Your task to perform on an android device: open app "Duolingo: language lessons" (install if not already installed) and go to login screen Image 0: 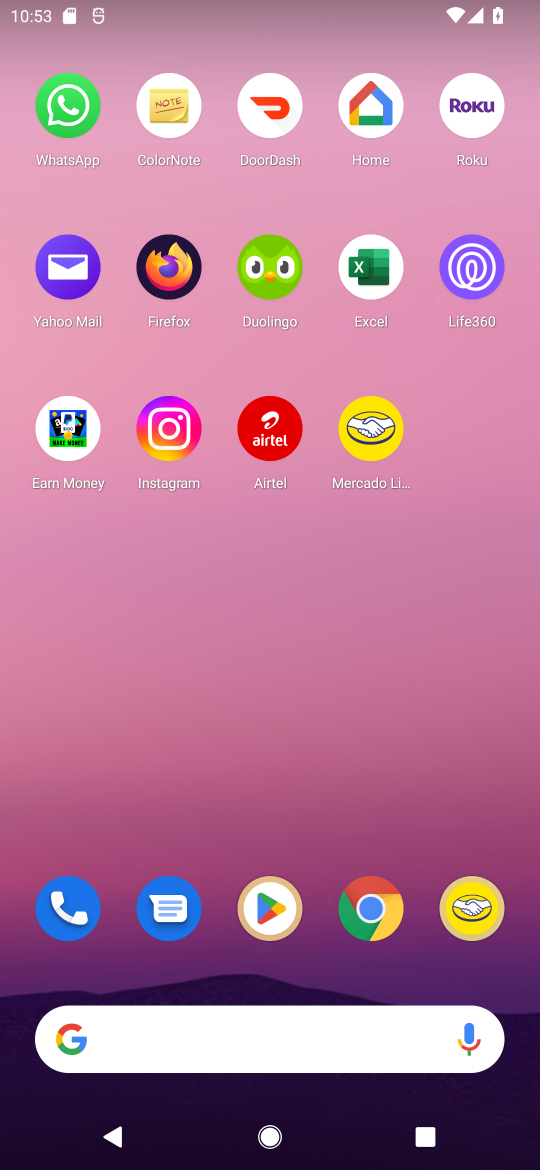
Step 0: click (267, 905)
Your task to perform on an android device: open app "Duolingo: language lessons" (install if not already installed) and go to login screen Image 1: 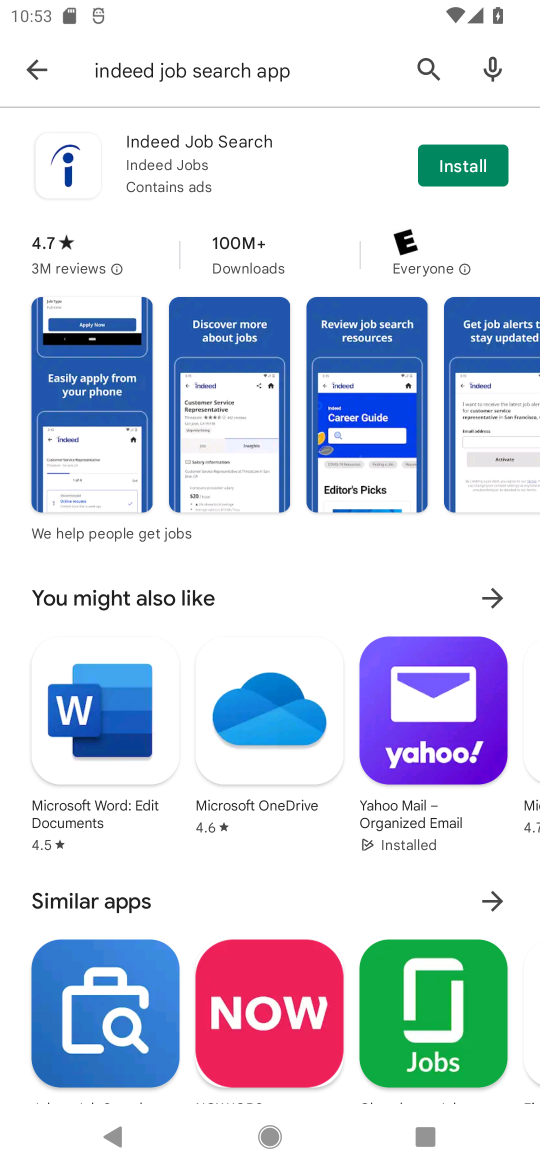
Step 1: click (53, 83)
Your task to perform on an android device: open app "Duolingo: language lessons" (install if not already installed) and go to login screen Image 2: 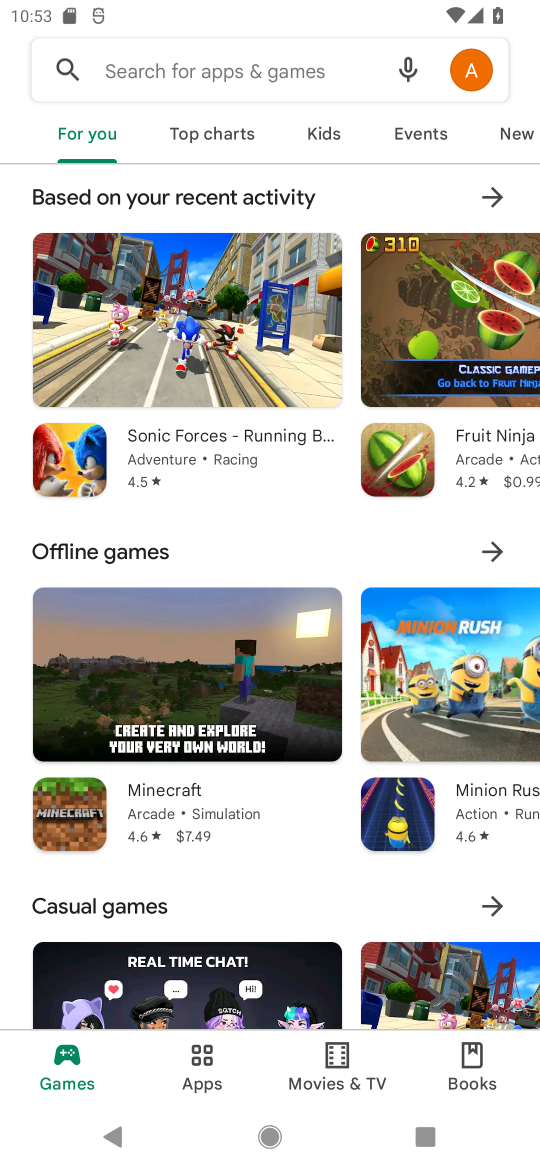
Step 2: click (104, 71)
Your task to perform on an android device: open app "Duolingo: language lessons" (install if not already installed) and go to login screen Image 3: 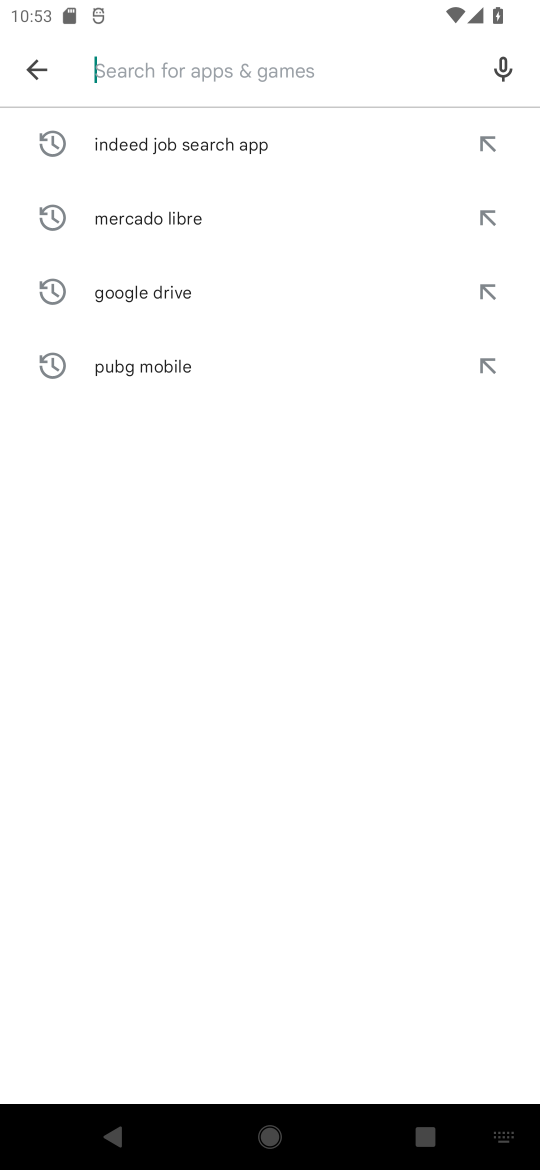
Step 3: type "Duolingo"
Your task to perform on an android device: open app "Duolingo: language lessons" (install if not already installed) and go to login screen Image 4: 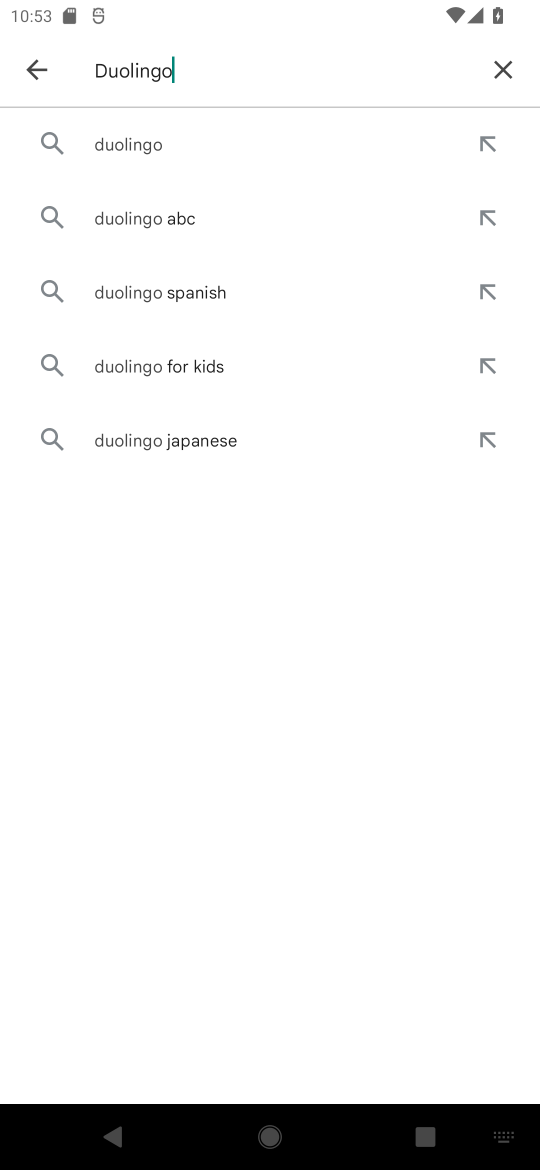
Step 4: click (214, 133)
Your task to perform on an android device: open app "Duolingo: language lessons" (install if not already installed) and go to login screen Image 5: 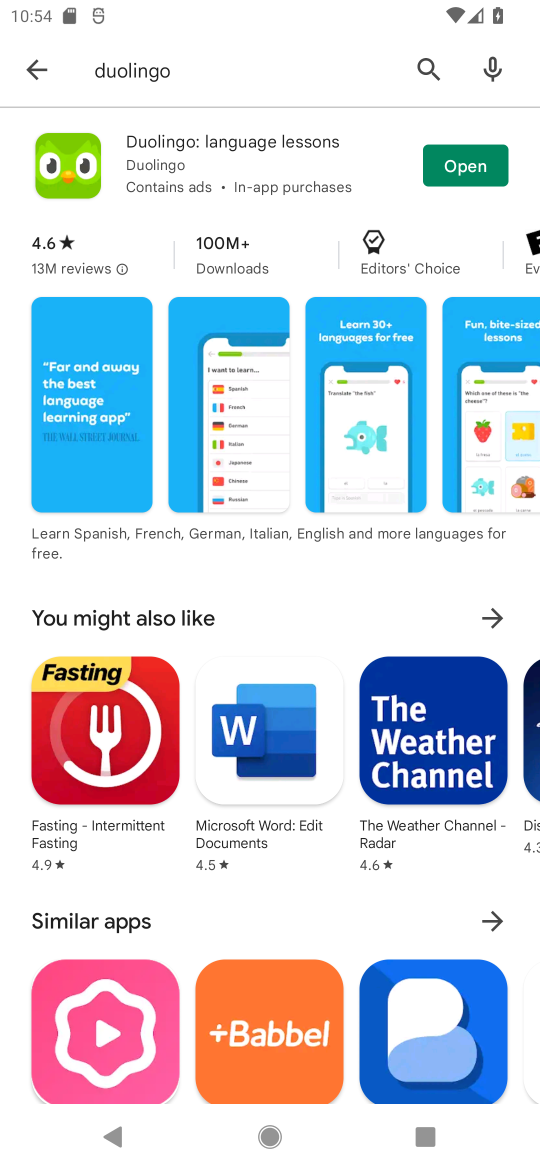
Step 5: click (452, 167)
Your task to perform on an android device: open app "Duolingo: language lessons" (install if not already installed) and go to login screen Image 6: 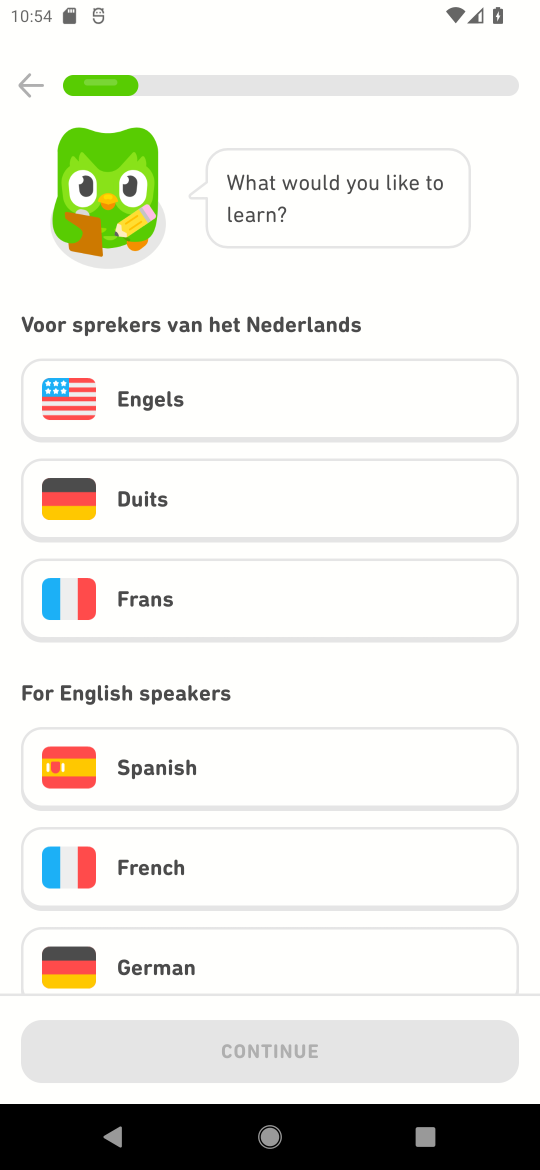
Step 6: click (22, 95)
Your task to perform on an android device: open app "Duolingo: language lessons" (install if not already installed) and go to login screen Image 7: 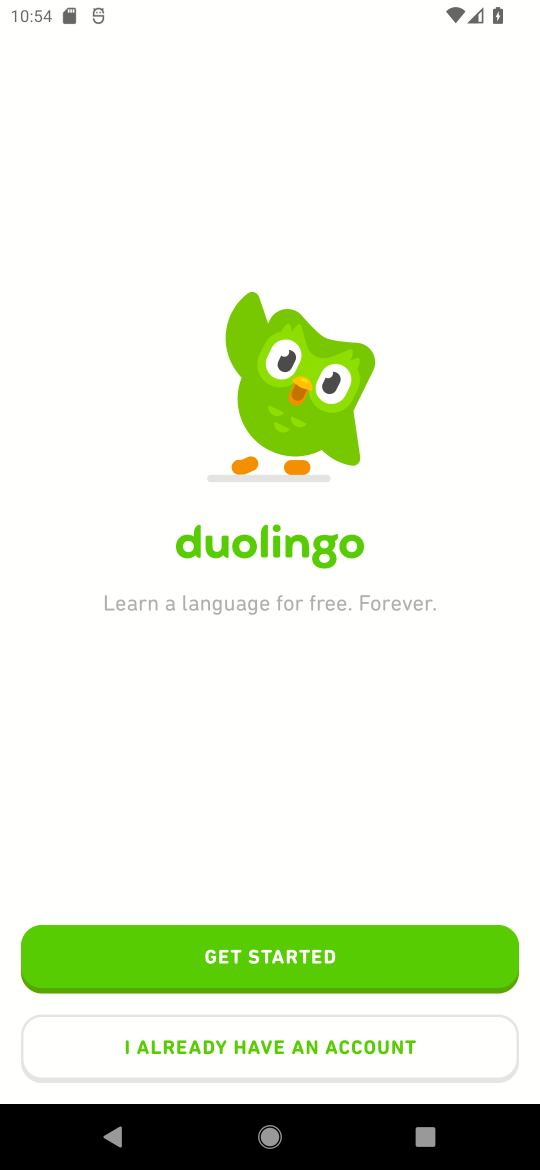
Step 7: click (195, 1041)
Your task to perform on an android device: open app "Duolingo: language lessons" (install if not already installed) and go to login screen Image 8: 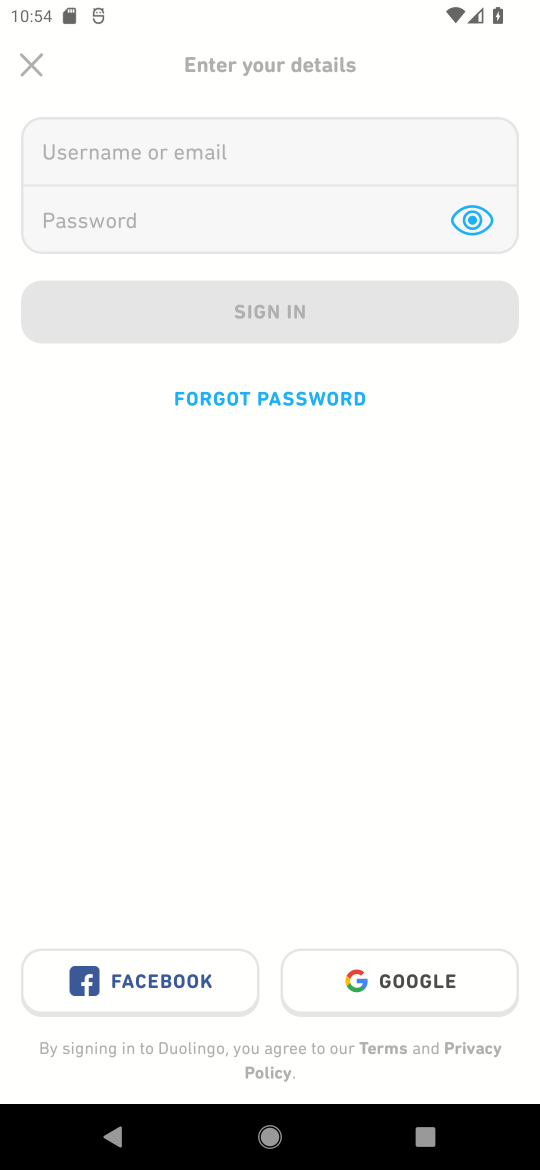
Step 8: task complete